Your task to perform on an android device: Open Youtube and go to the subscriptions tab Image 0: 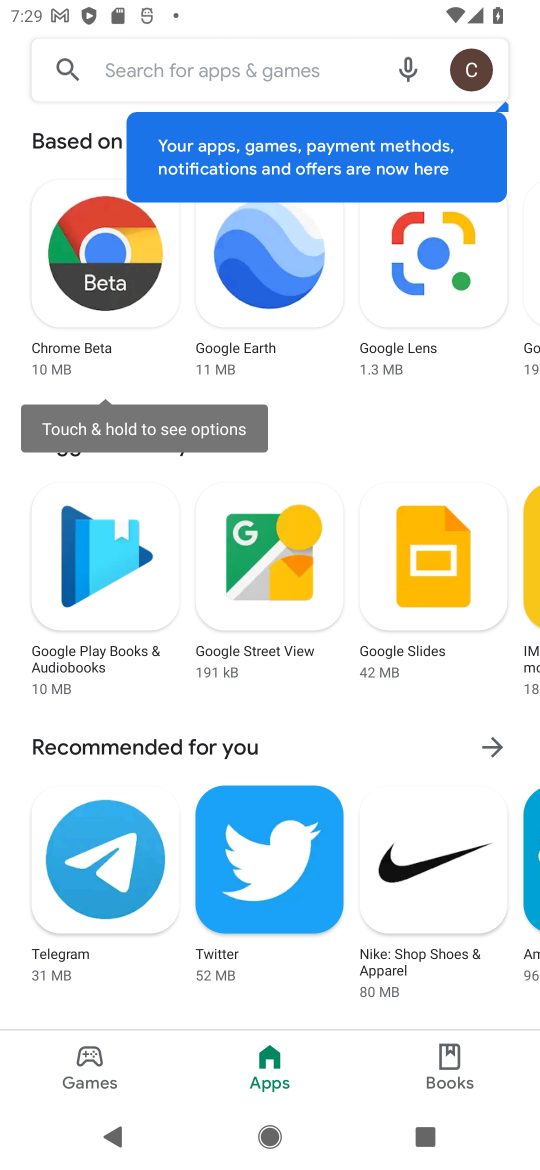
Step 0: press home button
Your task to perform on an android device: Open Youtube and go to the subscriptions tab Image 1: 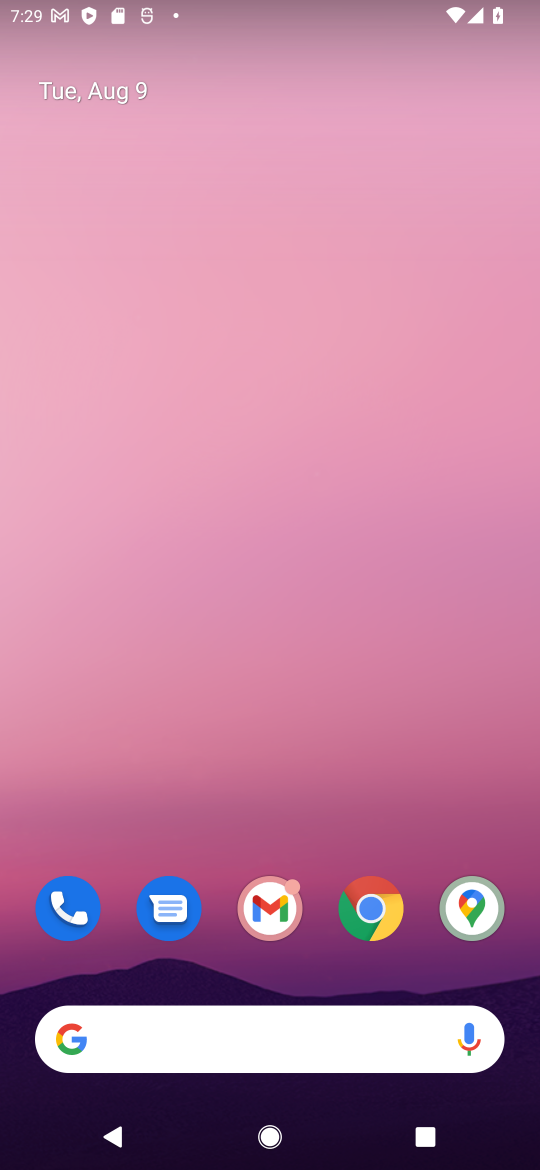
Step 1: drag from (323, 867) to (318, 36)
Your task to perform on an android device: Open Youtube and go to the subscriptions tab Image 2: 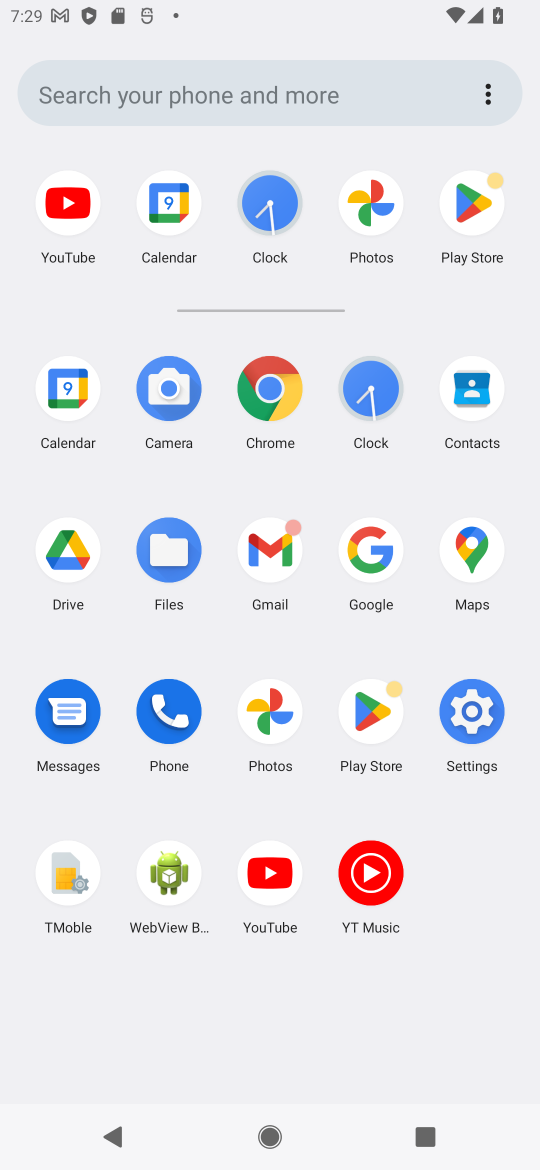
Step 2: click (275, 859)
Your task to perform on an android device: Open Youtube and go to the subscriptions tab Image 3: 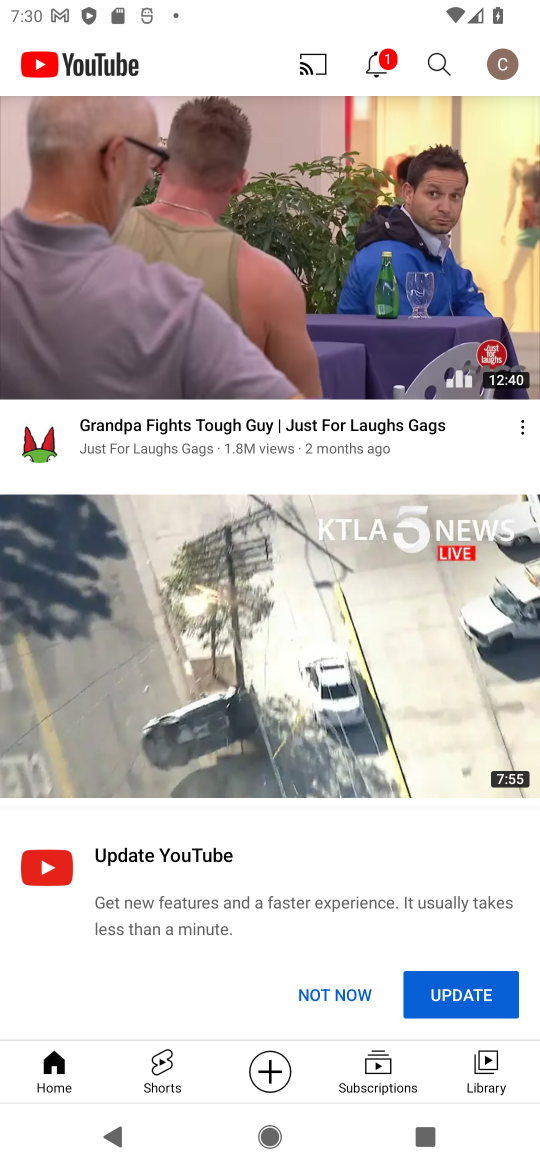
Step 3: click (368, 1060)
Your task to perform on an android device: Open Youtube and go to the subscriptions tab Image 4: 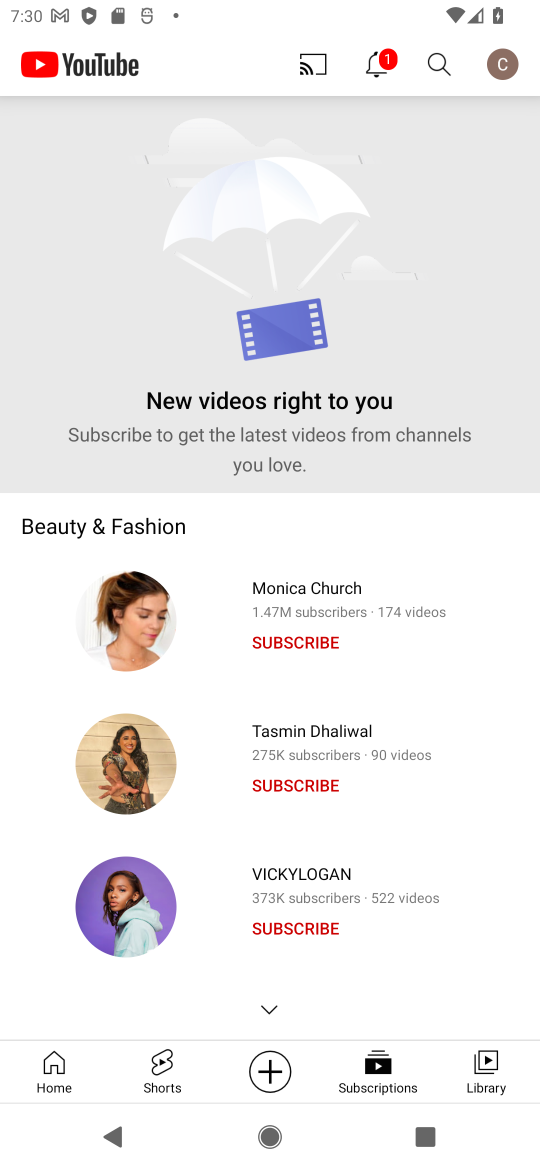
Step 4: click (393, 1051)
Your task to perform on an android device: Open Youtube and go to the subscriptions tab Image 5: 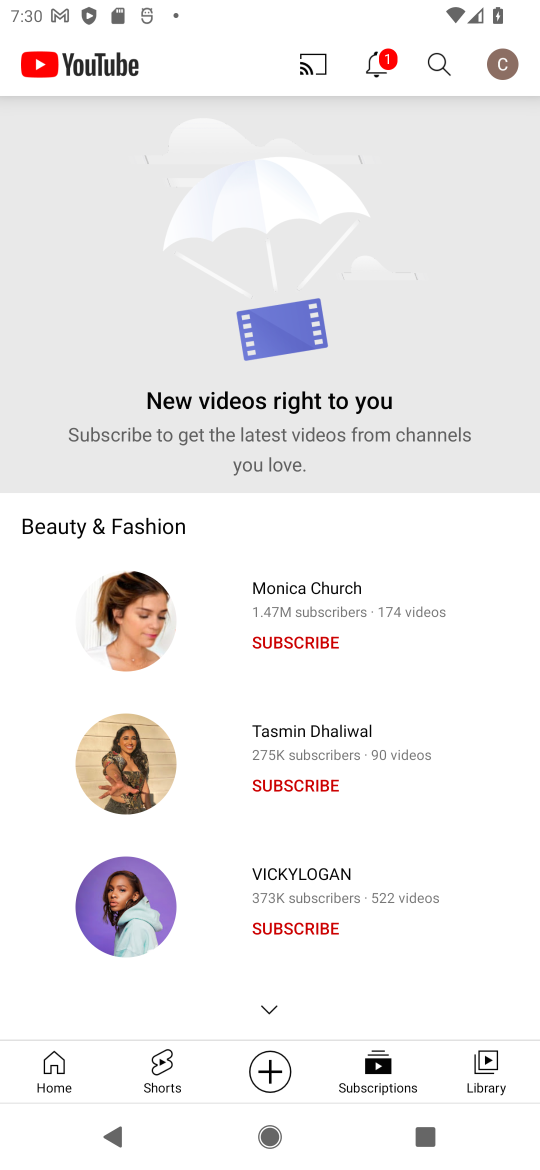
Step 5: task complete